Your task to perform on an android device: Open Google Maps and go to "Timeline" Image 0: 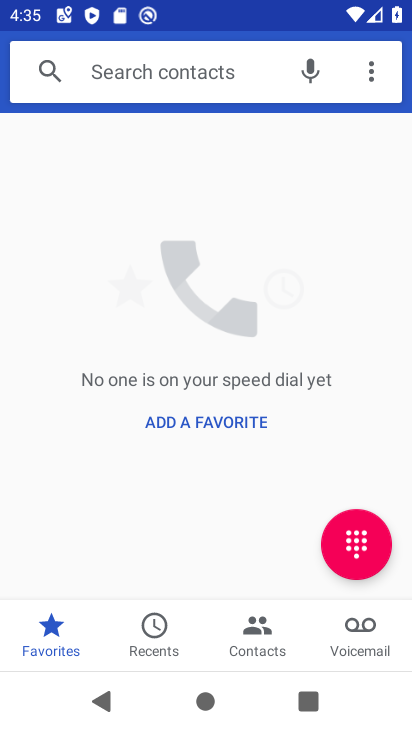
Step 0: press home button
Your task to perform on an android device: Open Google Maps and go to "Timeline" Image 1: 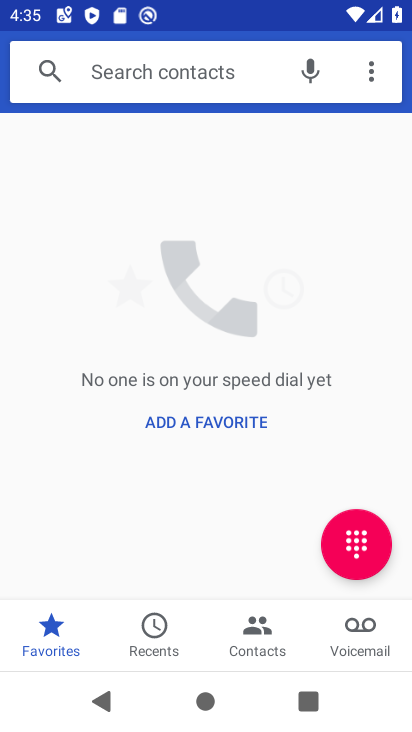
Step 1: press home button
Your task to perform on an android device: Open Google Maps and go to "Timeline" Image 2: 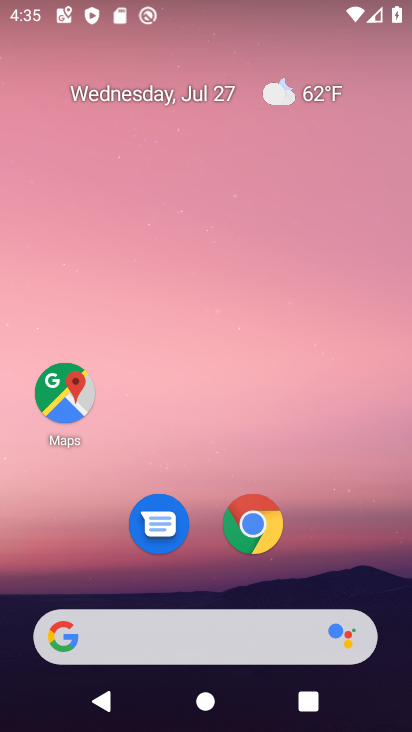
Step 2: click (61, 381)
Your task to perform on an android device: Open Google Maps and go to "Timeline" Image 3: 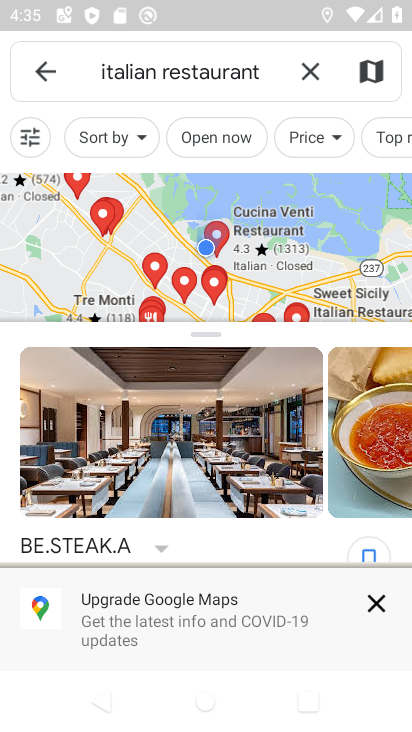
Step 3: click (49, 68)
Your task to perform on an android device: Open Google Maps and go to "Timeline" Image 4: 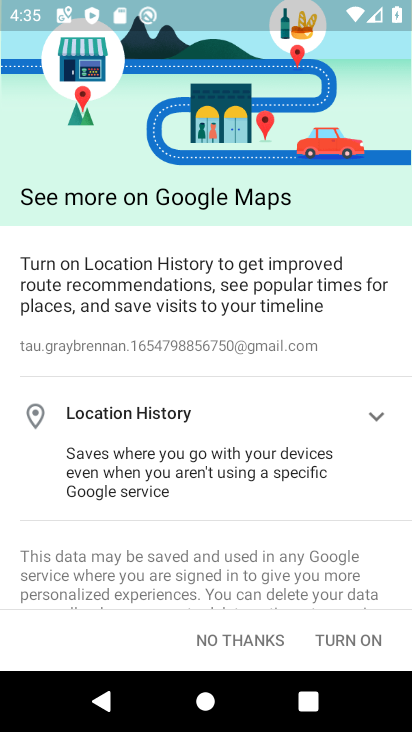
Step 4: click (351, 641)
Your task to perform on an android device: Open Google Maps and go to "Timeline" Image 5: 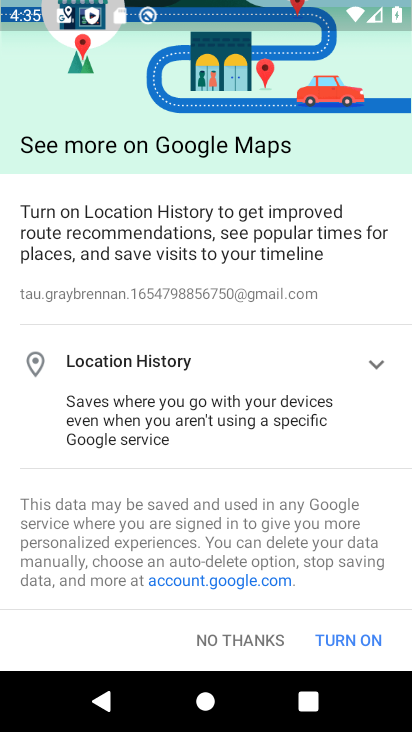
Step 5: click (362, 638)
Your task to perform on an android device: Open Google Maps and go to "Timeline" Image 6: 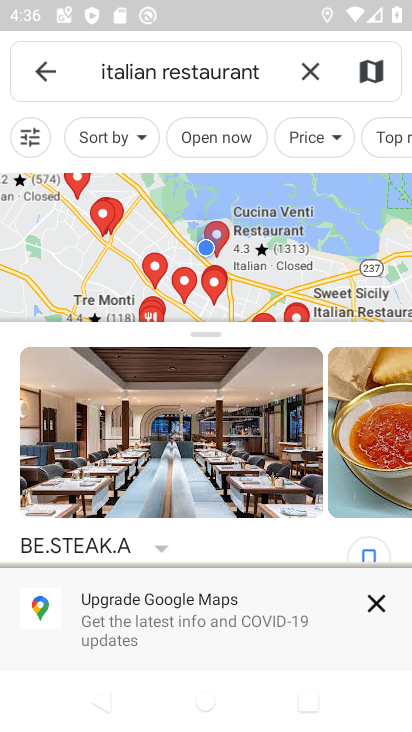
Step 6: click (38, 62)
Your task to perform on an android device: Open Google Maps and go to "Timeline" Image 7: 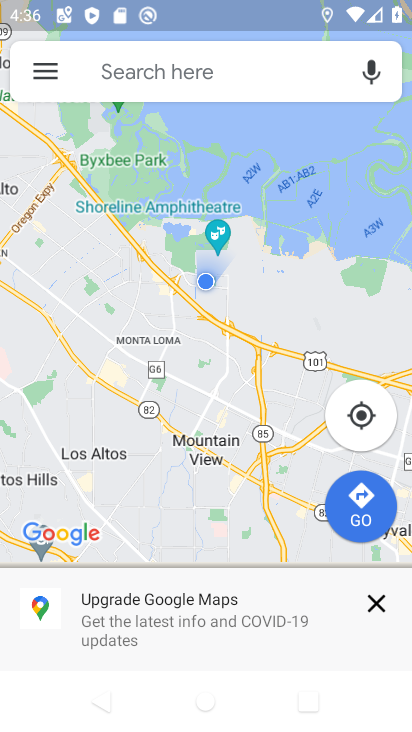
Step 7: click (51, 74)
Your task to perform on an android device: Open Google Maps and go to "Timeline" Image 8: 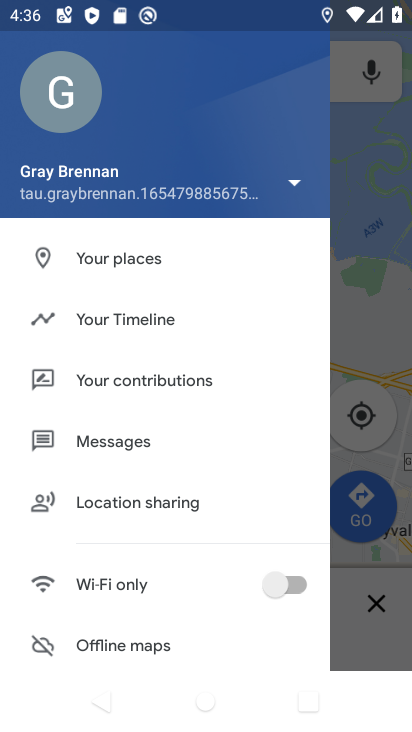
Step 8: click (147, 309)
Your task to perform on an android device: Open Google Maps and go to "Timeline" Image 9: 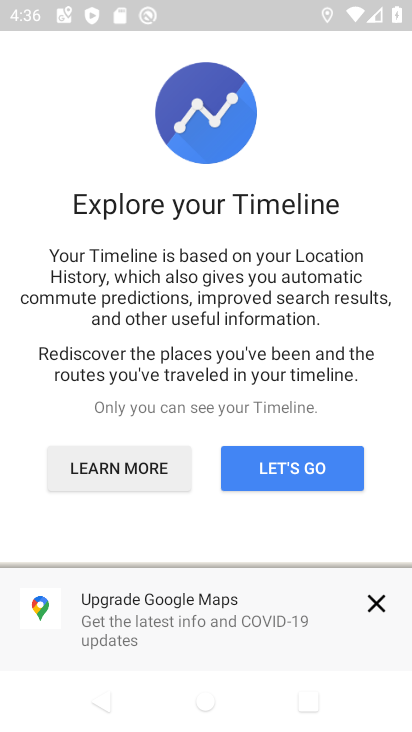
Step 9: click (313, 470)
Your task to perform on an android device: Open Google Maps and go to "Timeline" Image 10: 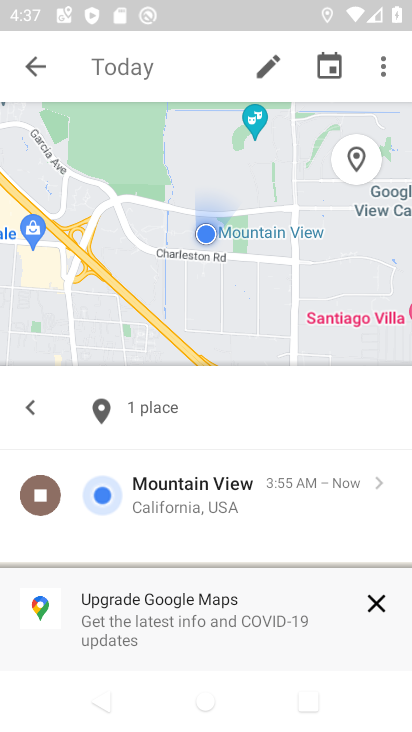
Step 10: task complete